Your task to perform on an android device: Open Google Chrome Image 0: 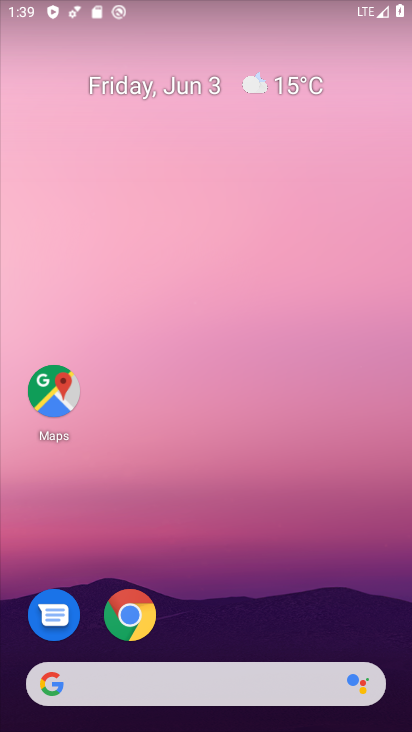
Step 0: click (253, 189)
Your task to perform on an android device: Open Google Chrome Image 1: 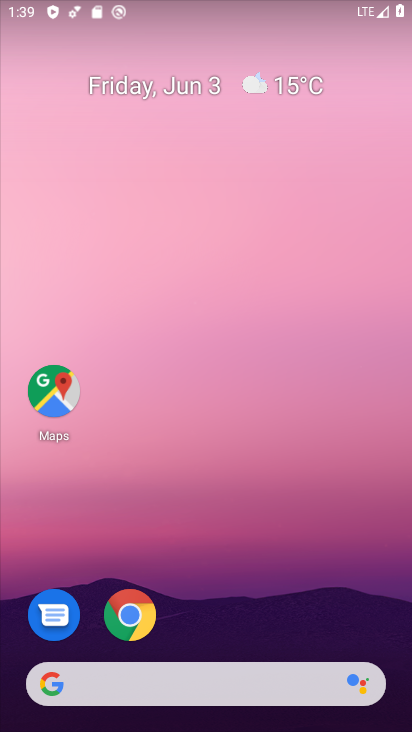
Step 1: drag from (205, 658) to (222, 141)
Your task to perform on an android device: Open Google Chrome Image 2: 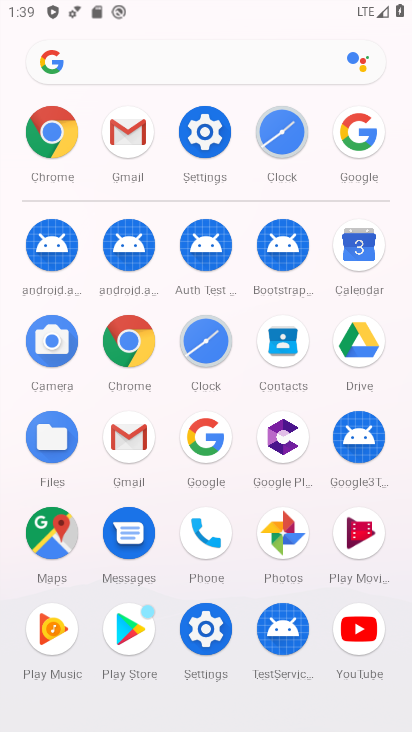
Step 2: click (144, 332)
Your task to perform on an android device: Open Google Chrome Image 3: 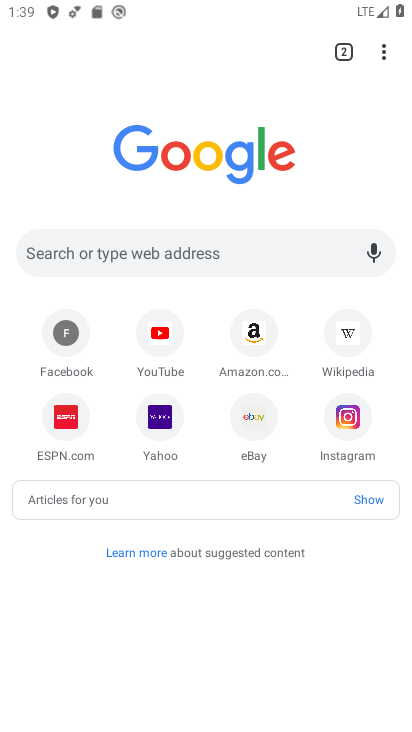
Step 3: task complete